Your task to perform on an android device: Open Amazon Image 0: 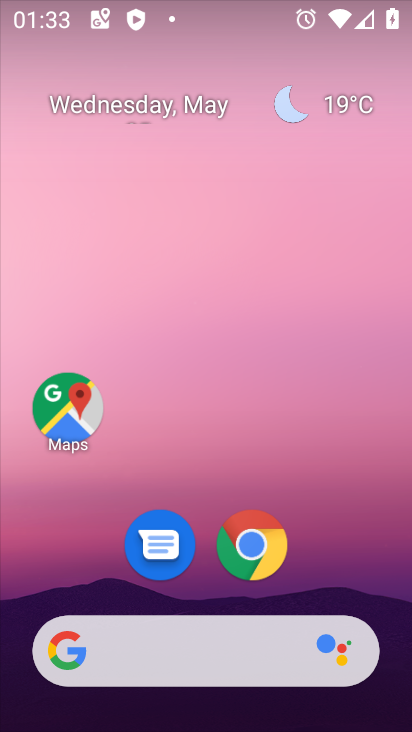
Step 0: click (238, 535)
Your task to perform on an android device: Open Amazon Image 1: 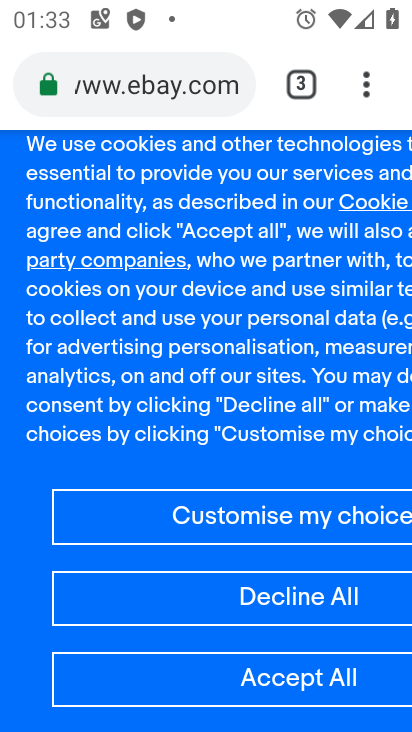
Step 1: click (201, 89)
Your task to perform on an android device: Open Amazon Image 2: 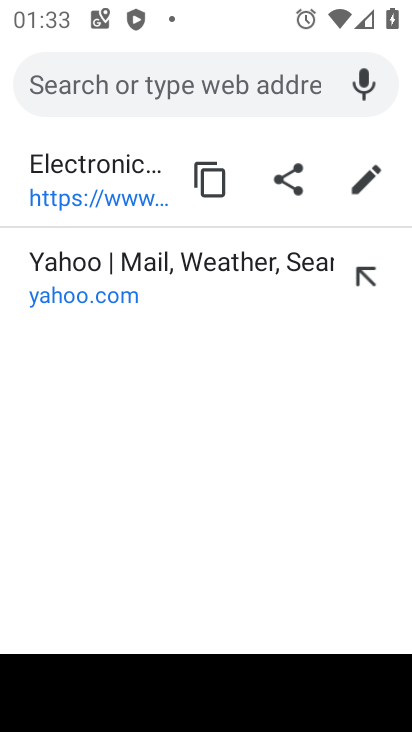
Step 2: type "amazon"
Your task to perform on an android device: Open Amazon Image 3: 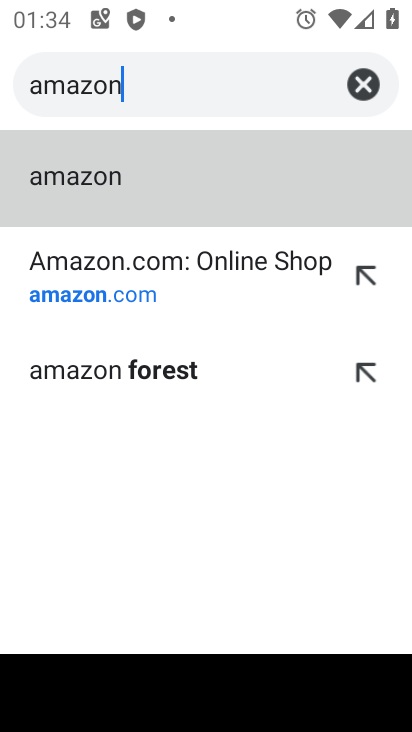
Step 3: click (138, 292)
Your task to perform on an android device: Open Amazon Image 4: 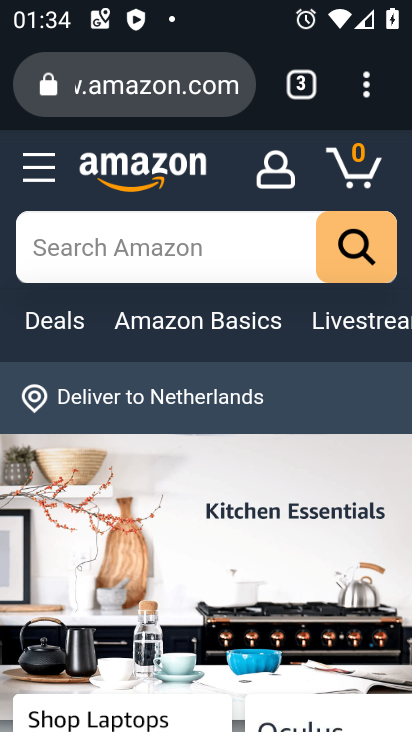
Step 4: task complete